Your task to perform on an android device: open app "Booking.com: Hotels and more" (install if not already installed) Image 0: 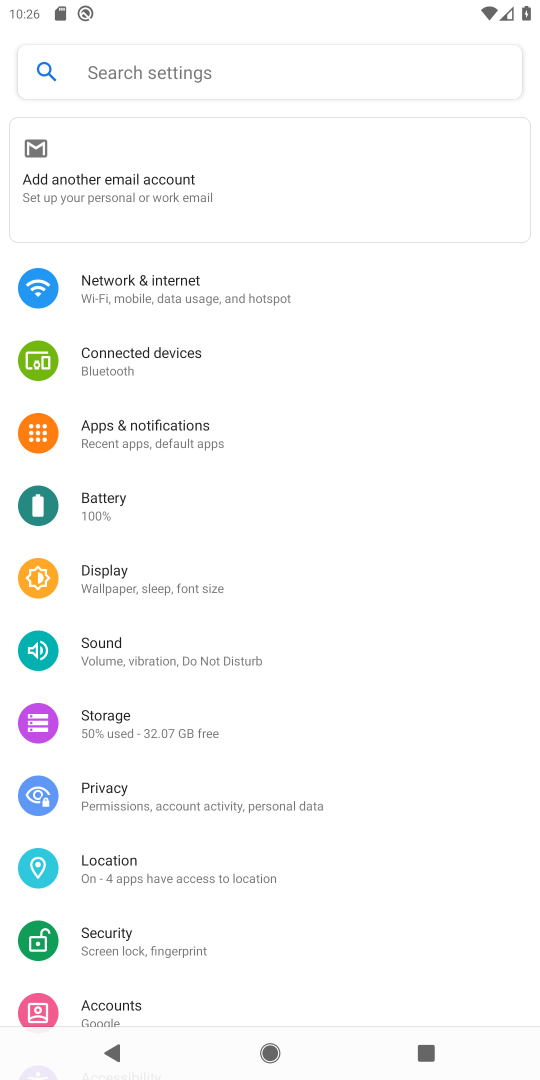
Step 0: task impossible